Your task to perform on an android device: View the shopping cart on bestbuy. Search for "usb-c to usb-a" on bestbuy, select the first entry, and add it to the cart. Image 0: 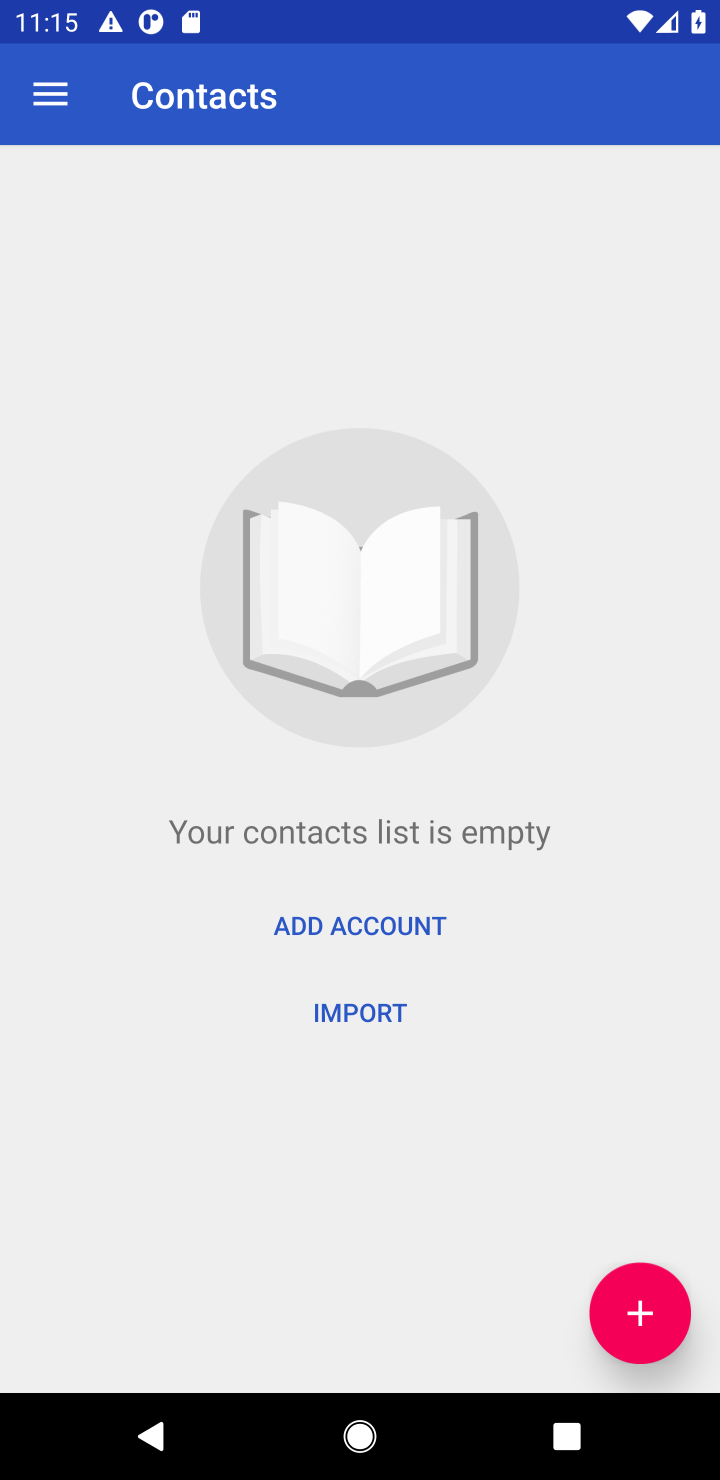
Step 0: press home button
Your task to perform on an android device: View the shopping cart on bestbuy. Search for "usb-c to usb-a" on bestbuy, select the first entry, and add it to the cart. Image 1: 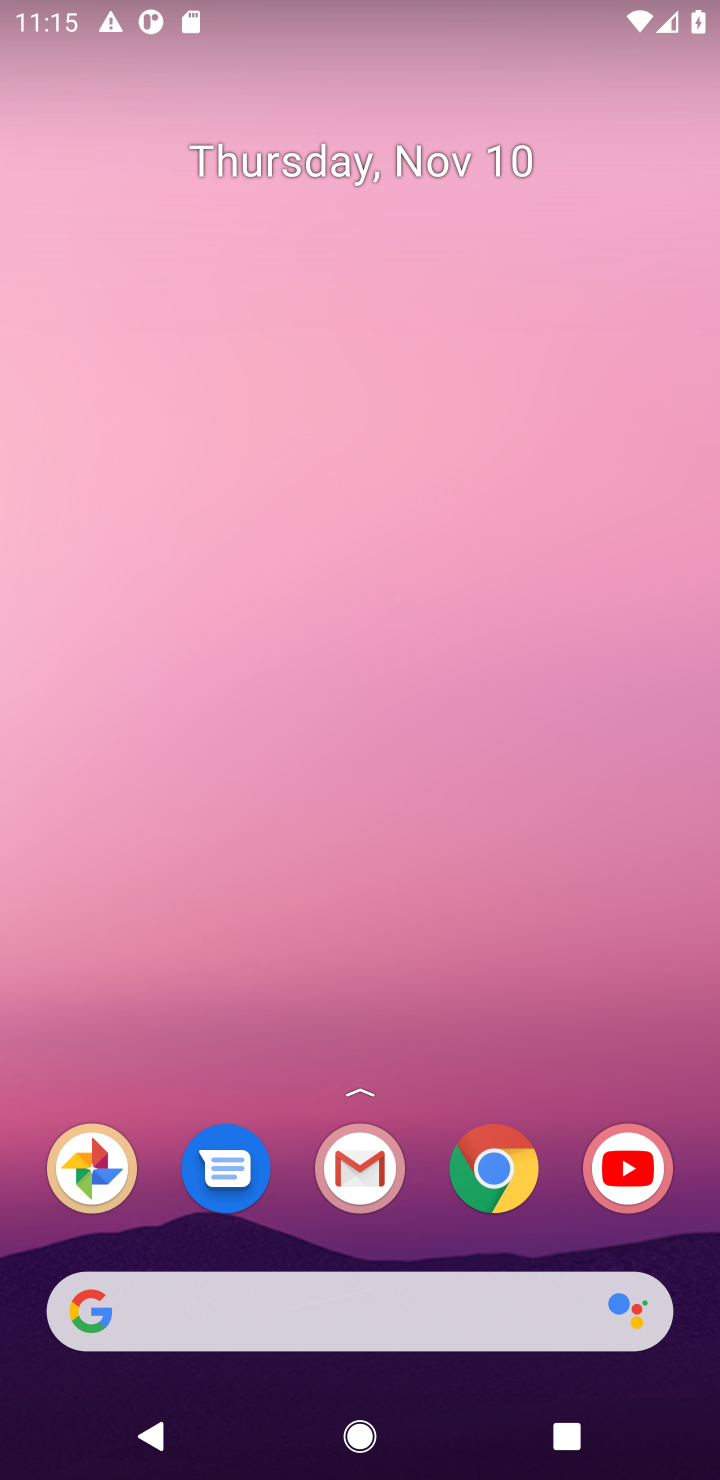
Step 1: click (482, 1169)
Your task to perform on an android device: View the shopping cart on bestbuy. Search for "usb-c to usb-a" on bestbuy, select the first entry, and add it to the cart. Image 2: 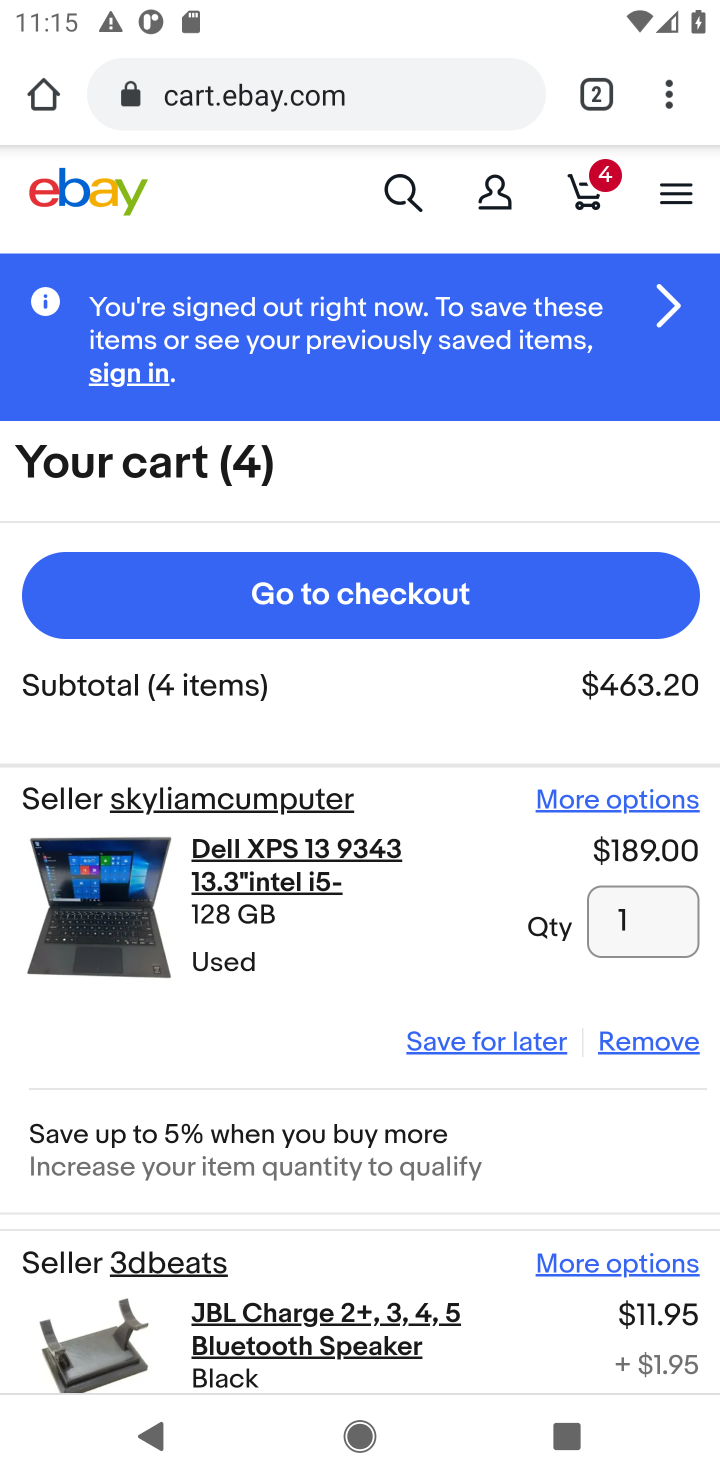
Step 2: click (239, 105)
Your task to perform on an android device: View the shopping cart on bestbuy. Search for "usb-c to usb-a" on bestbuy, select the first entry, and add it to the cart. Image 3: 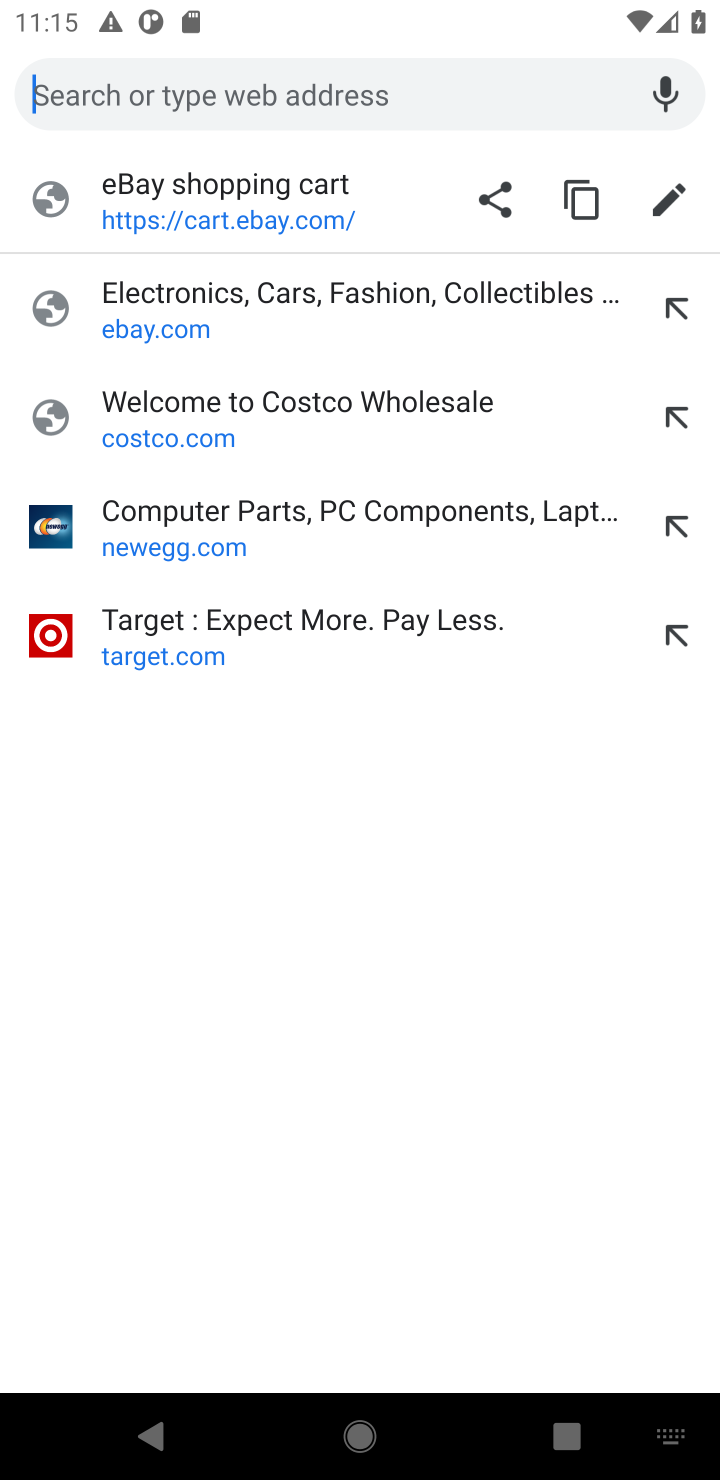
Step 3: type "bestbuy.com"
Your task to perform on an android device: View the shopping cart on bestbuy. Search for "usb-c to usb-a" on bestbuy, select the first entry, and add it to the cart. Image 4: 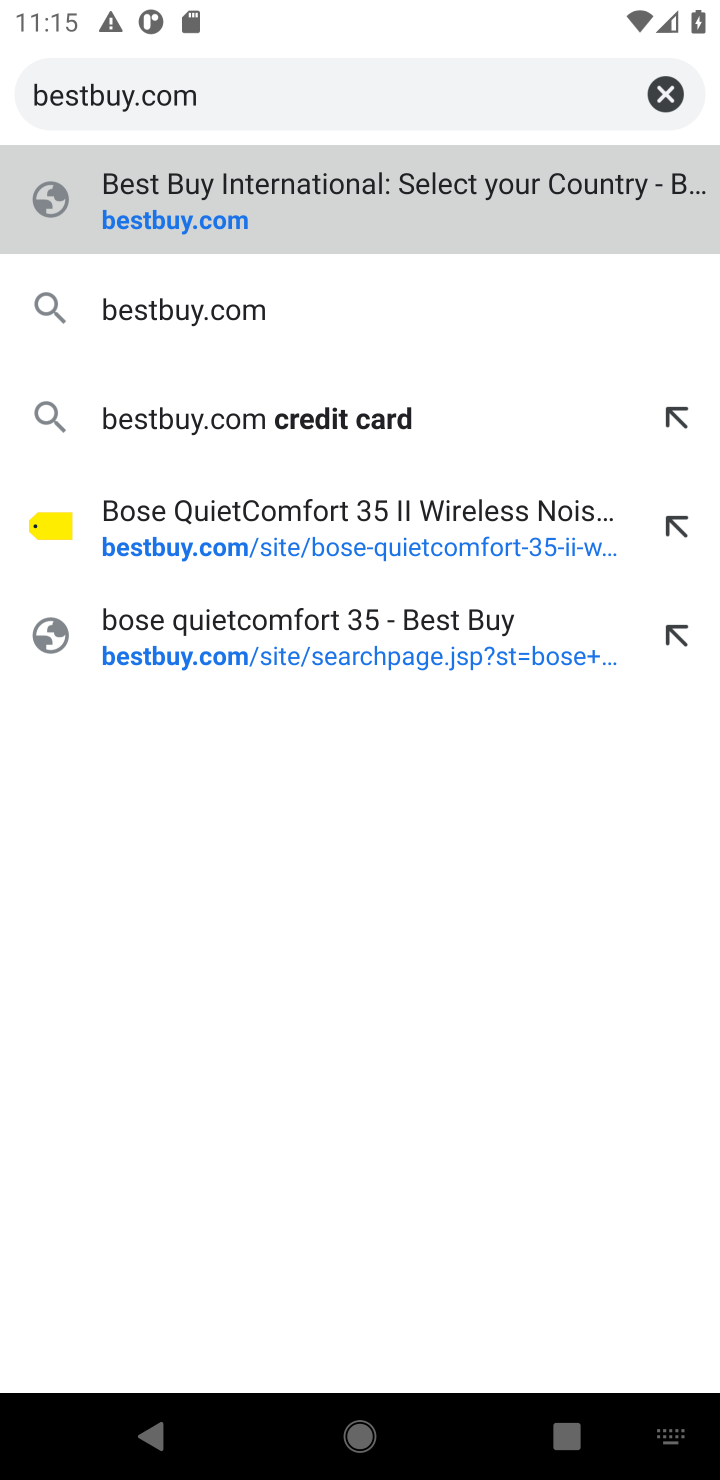
Step 4: click (144, 238)
Your task to perform on an android device: View the shopping cart on bestbuy. Search for "usb-c to usb-a" on bestbuy, select the first entry, and add it to the cart. Image 5: 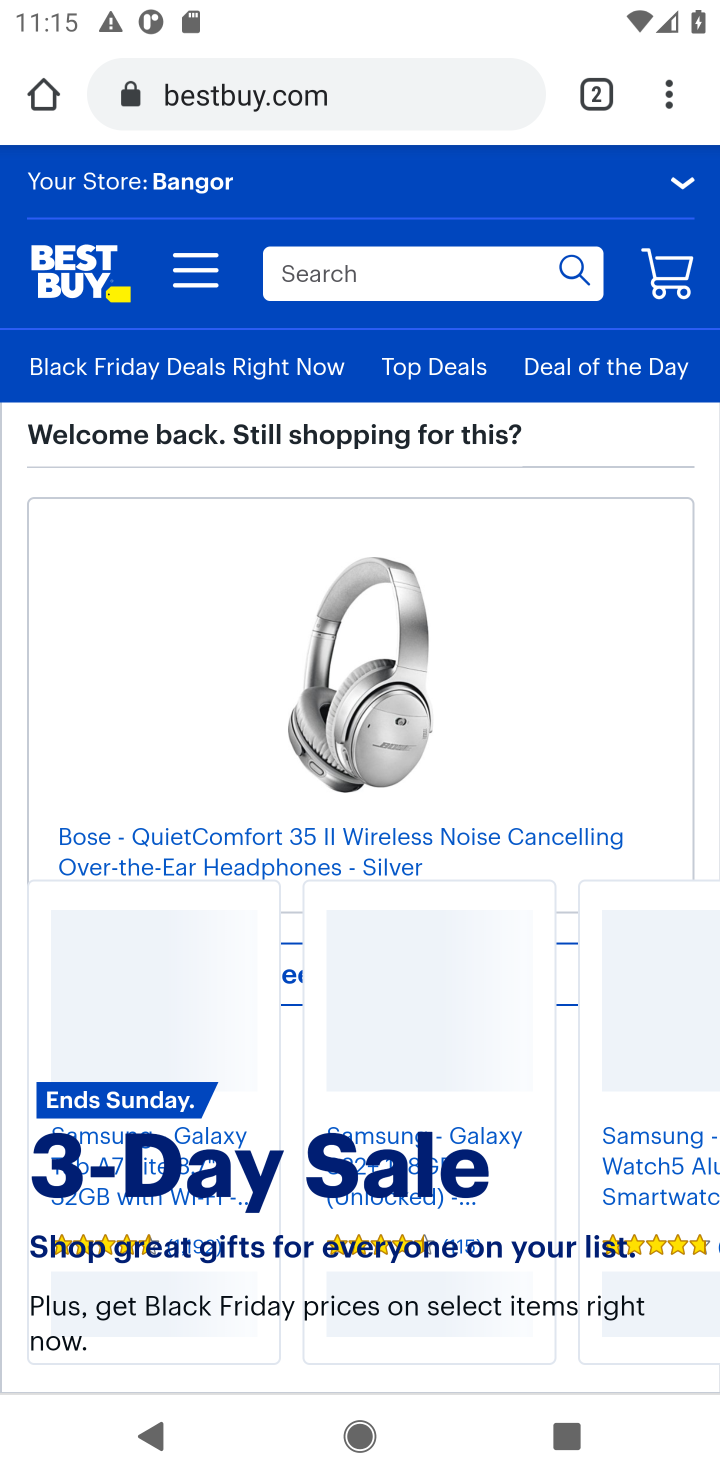
Step 5: click (680, 279)
Your task to perform on an android device: View the shopping cart on bestbuy. Search for "usb-c to usb-a" on bestbuy, select the first entry, and add it to the cart. Image 6: 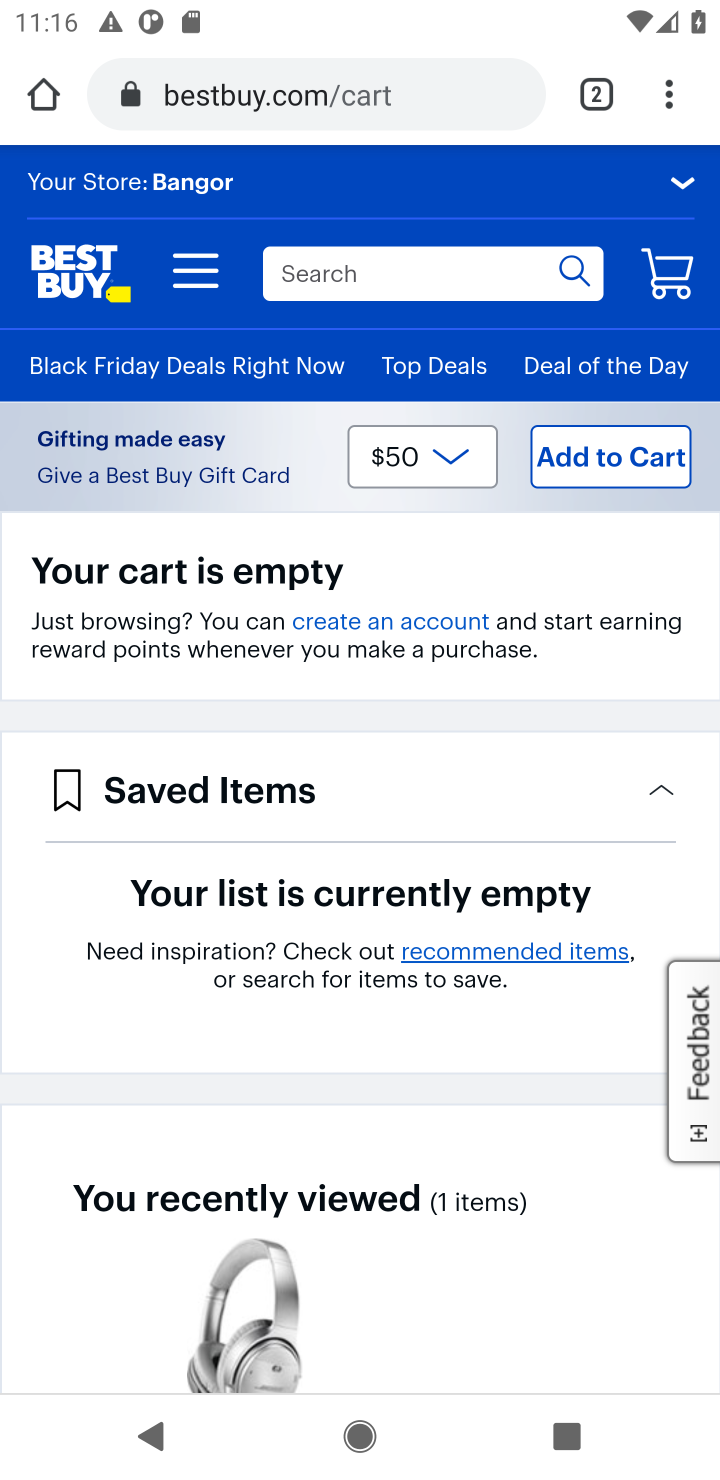
Step 6: click (389, 281)
Your task to perform on an android device: View the shopping cart on bestbuy. Search for "usb-c to usb-a" on bestbuy, select the first entry, and add it to the cart. Image 7: 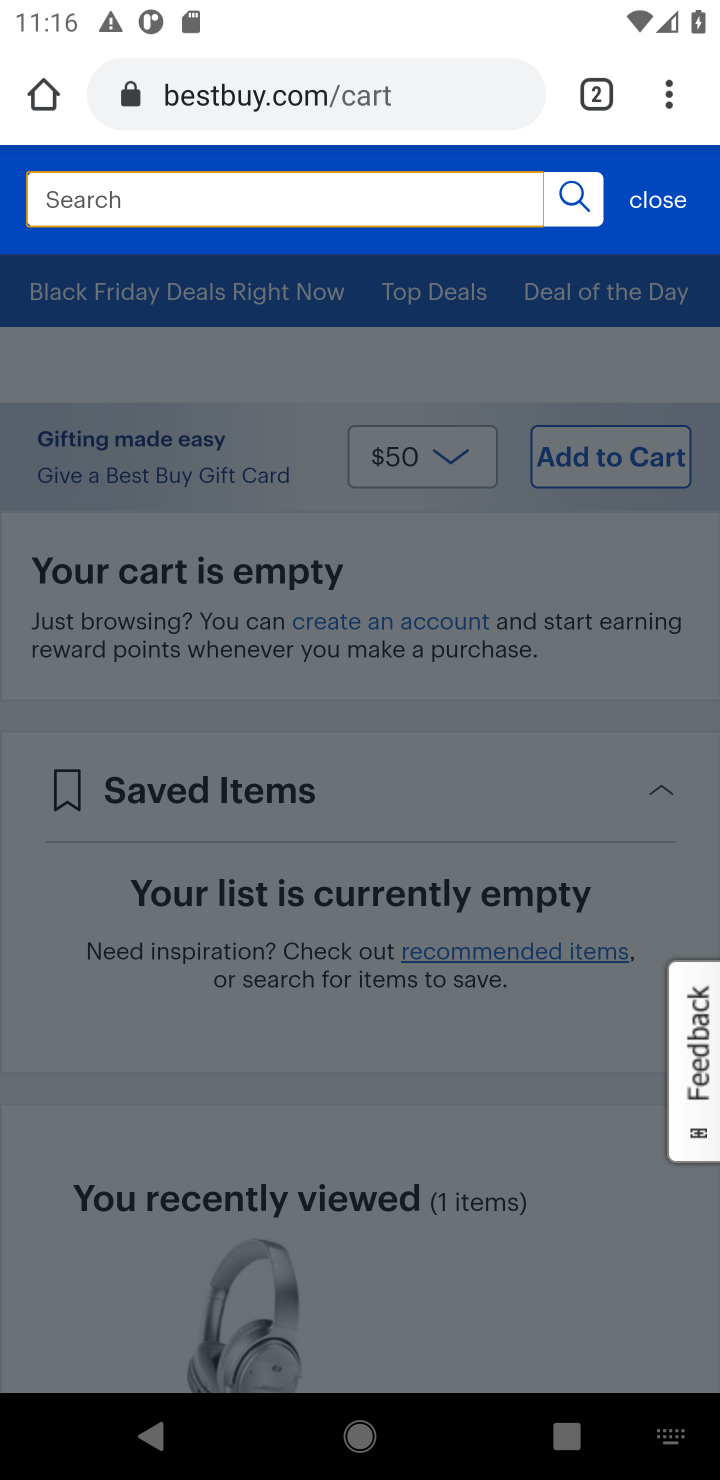
Step 7: type "usb-c to usb-a"
Your task to perform on an android device: View the shopping cart on bestbuy. Search for "usb-c to usb-a" on bestbuy, select the first entry, and add it to the cart. Image 8: 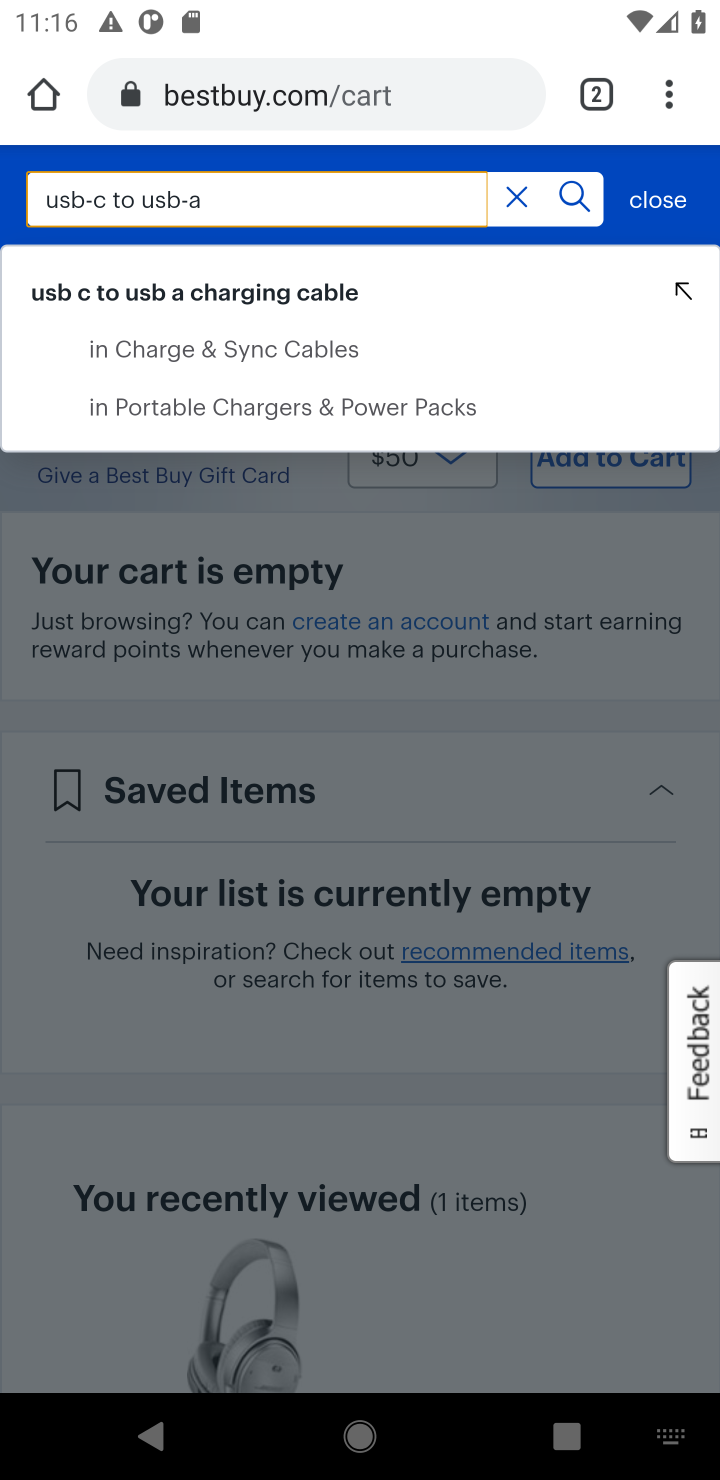
Step 8: click (561, 203)
Your task to perform on an android device: View the shopping cart on bestbuy. Search for "usb-c to usb-a" on bestbuy, select the first entry, and add it to the cart. Image 9: 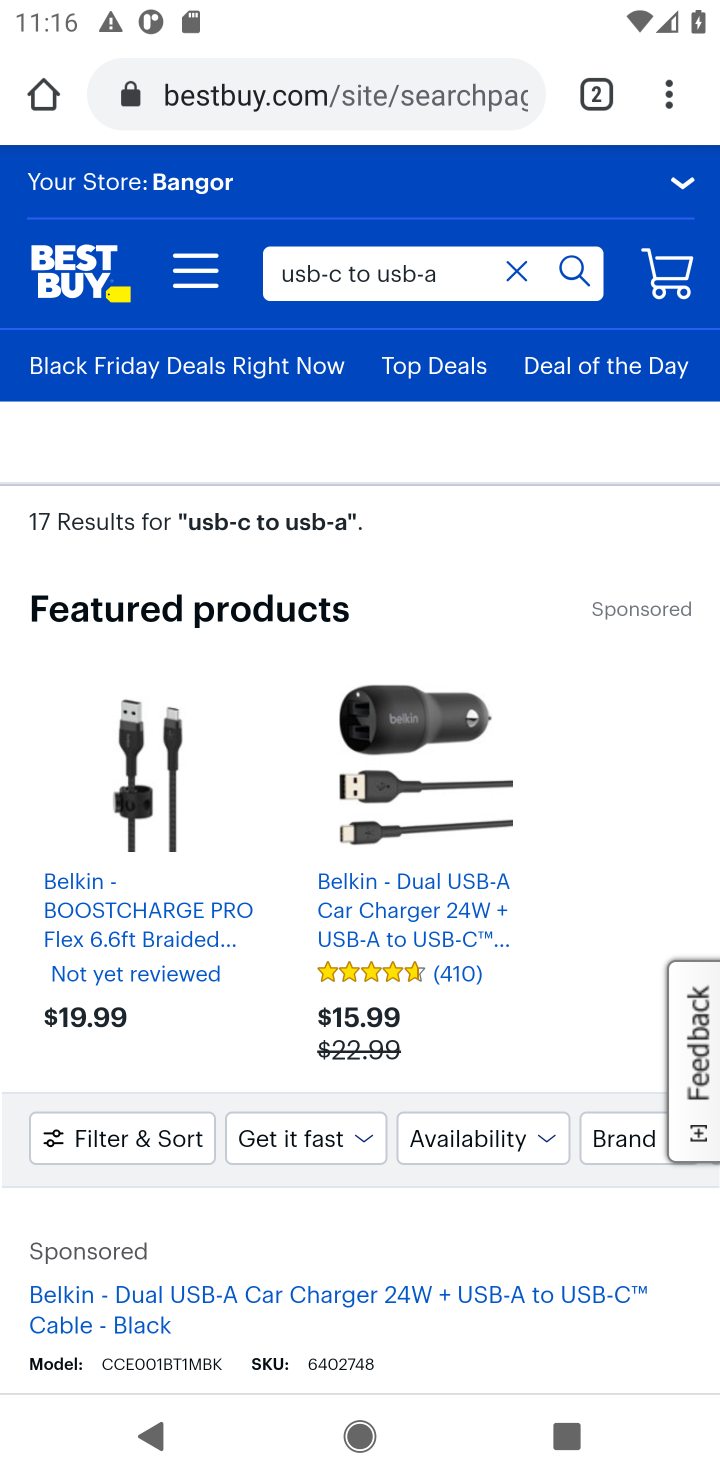
Step 9: drag from (236, 958) to (252, 524)
Your task to perform on an android device: View the shopping cart on bestbuy. Search for "usb-c to usb-a" on bestbuy, select the first entry, and add it to the cart. Image 10: 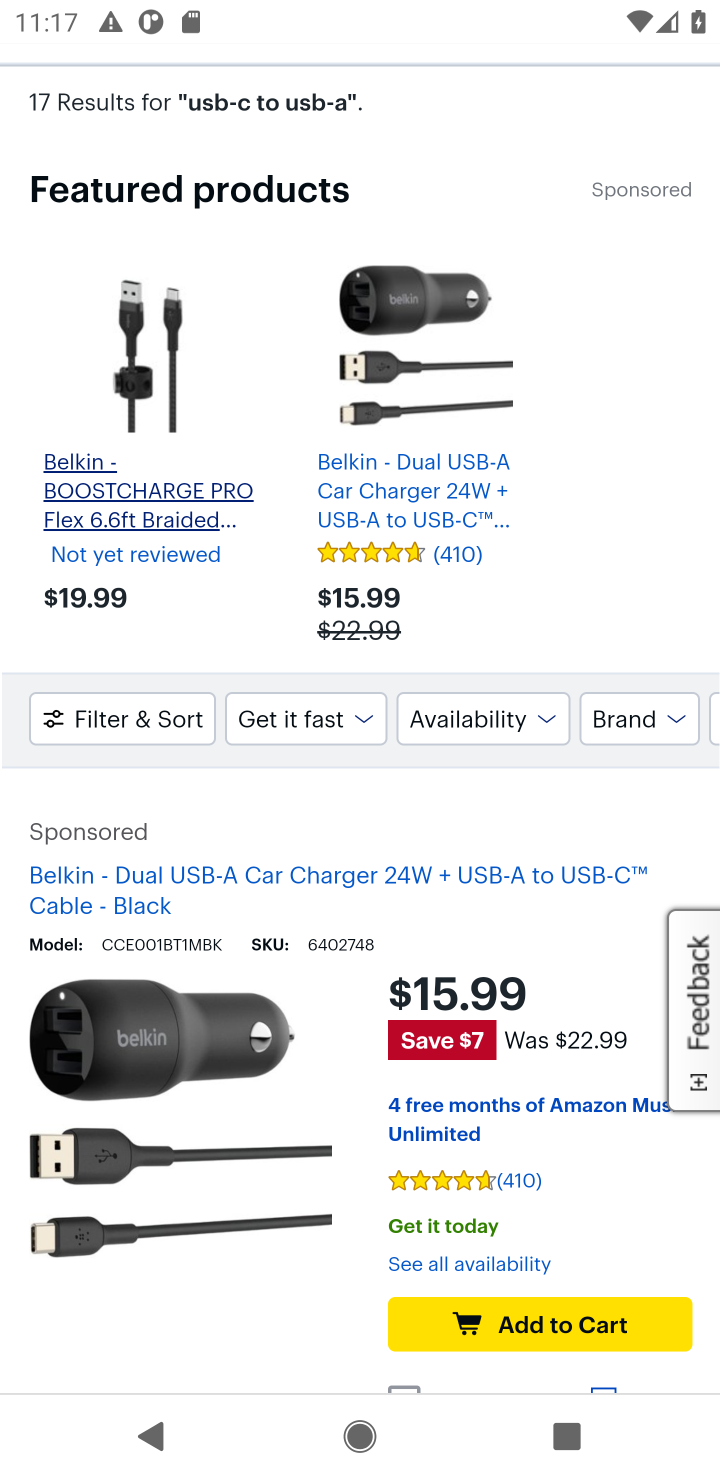
Step 10: click (527, 1321)
Your task to perform on an android device: View the shopping cart on bestbuy. Search for "usb-c to usb-a" on bestbuy, select the first entry, and add it to the cart. Image 11: 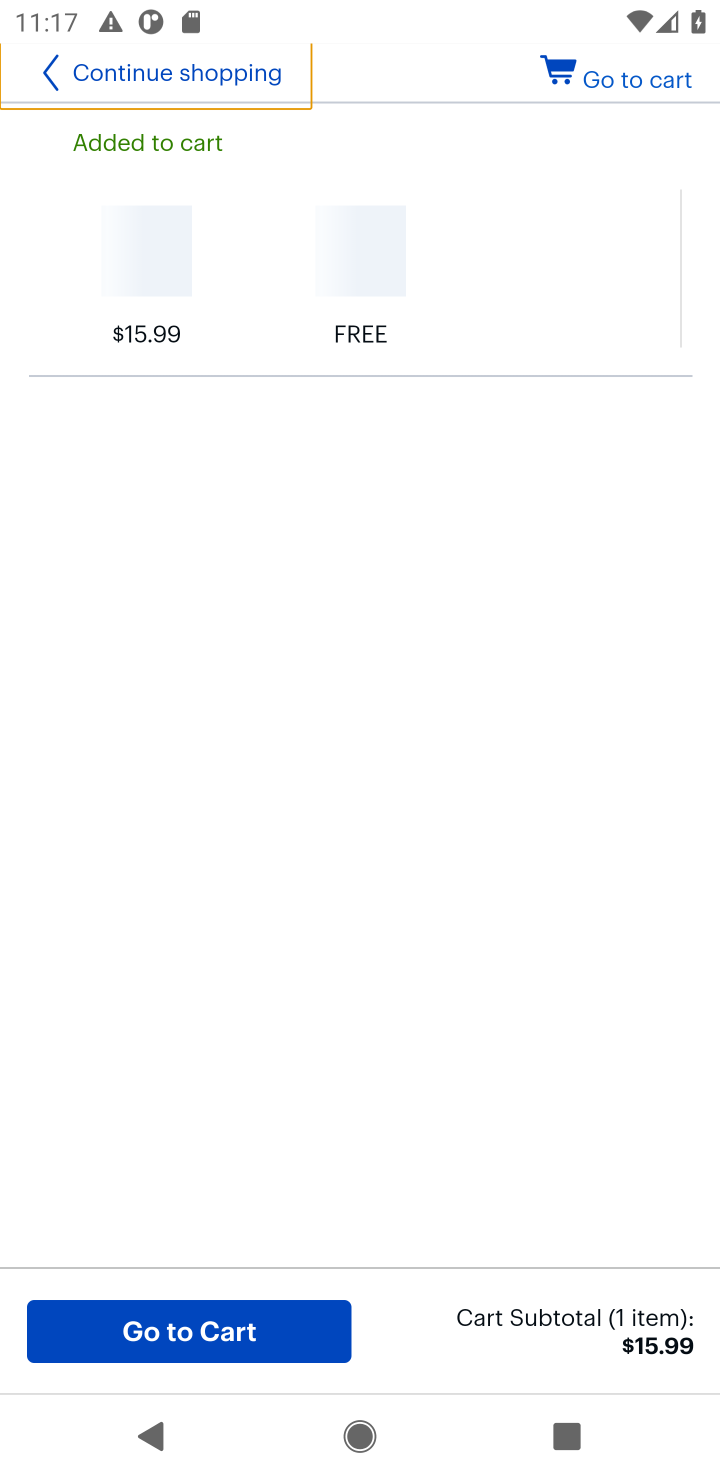
Step 11: task complete